Your task to perform on an android device: Open calendar and show me the third week of next month Image 0: 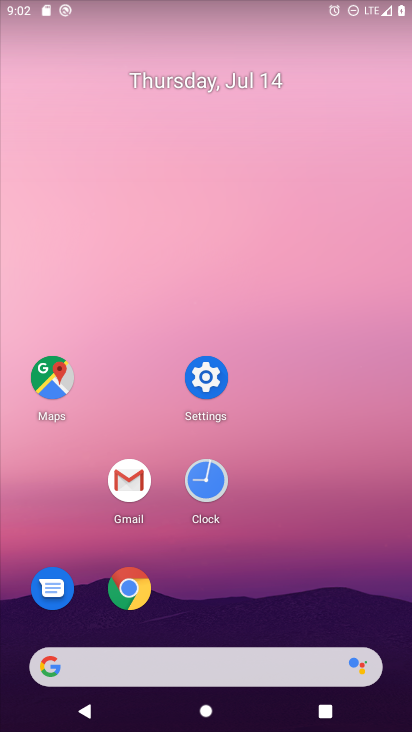
Step 0: drag from (394, 702) to (333, 206)
Your task to perform on an android device: Open calendar and show me the third week of next month Image 1: 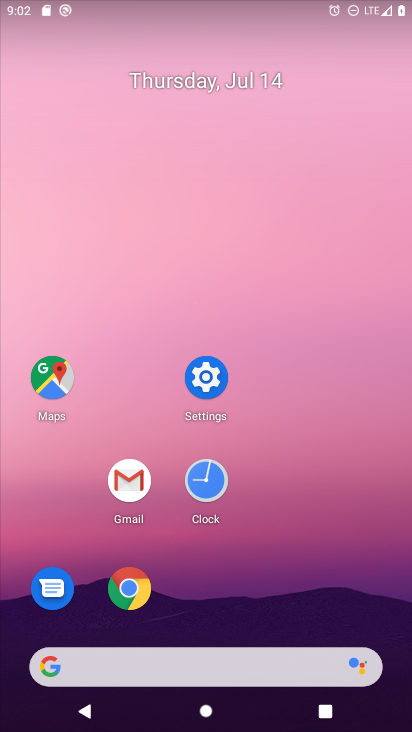
Step 1: drag from (390, 709) to (349, 104)
Your task to perform on an android device: Open calendar and show me the third week of next month Image 2: 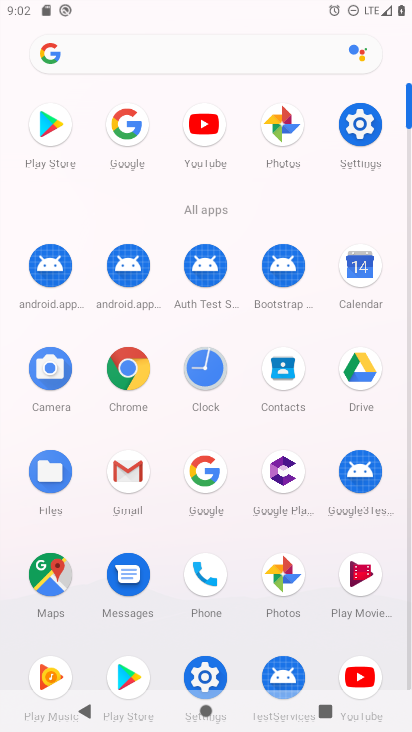
Step 2: click (354, 262)
Your task to perform on an android device: Open calendar and show me the third week of next month Image 3: 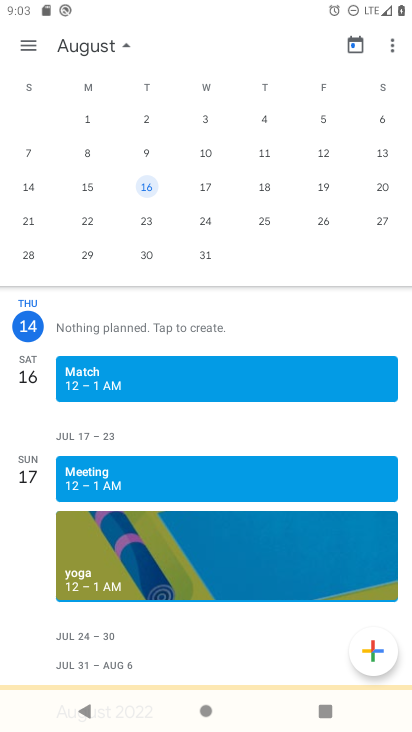
Step 3: click (265, 182)
Your task to perform on an android device: Open calendar and show me the third week of next month Image 4: 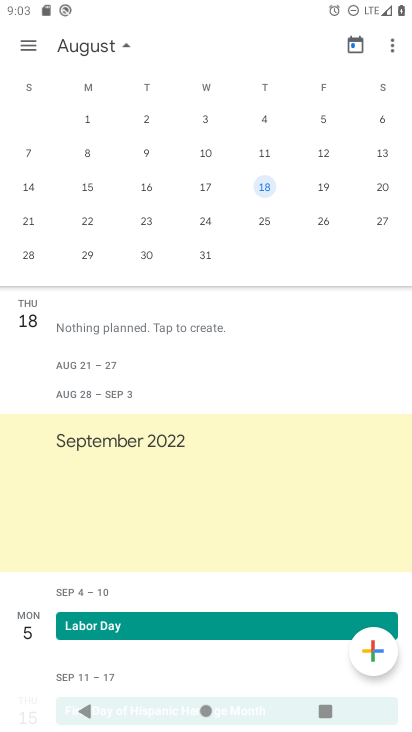
Step 4: task complete